Your task to perform on an android device: What's the weather today? Image 0: 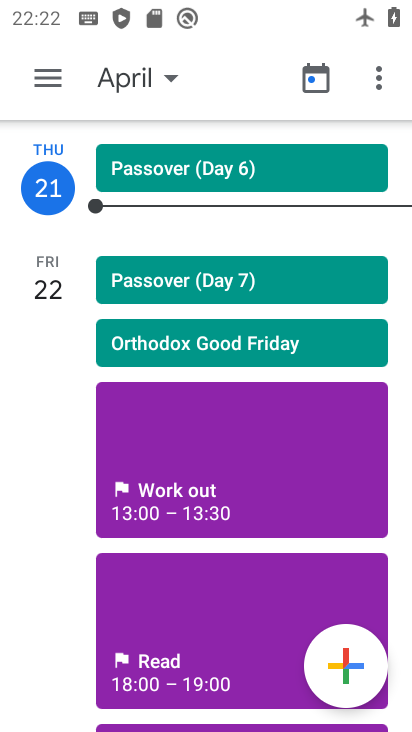
Step 0: press home button
Your task to perform on an android device: What's the weather today? Image 1: 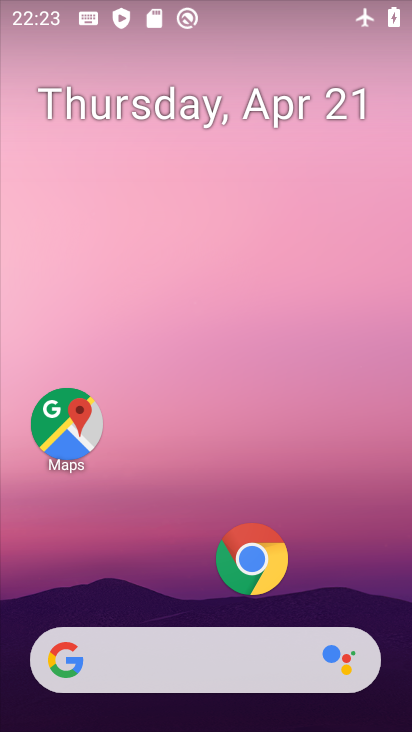
Step 1: click (254, 561)
Your task to perform on an android device: What's the weather today? Image 2: 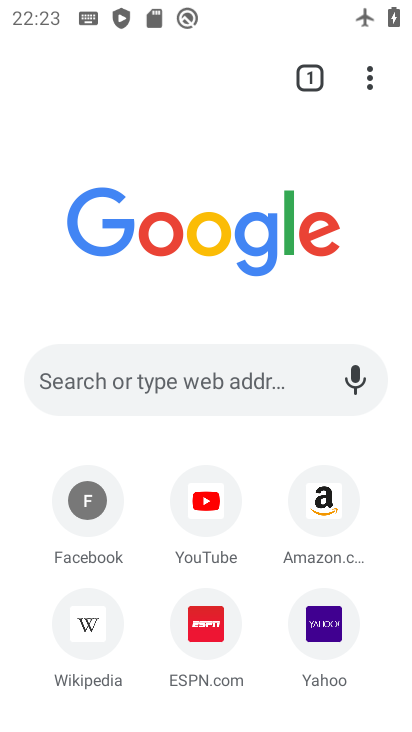
Step 2: click (152, 384)
Your task to perform on an android device: What's the weather today? Image 3: 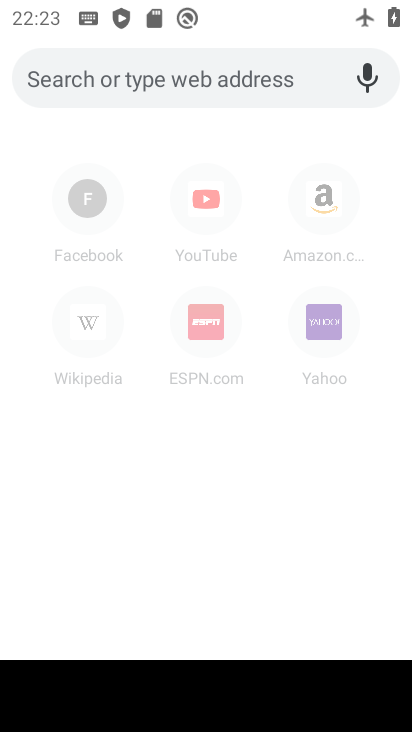
Step 3: type "today weather "
Your task to perform on an android device: What's the weather today? Image 4: 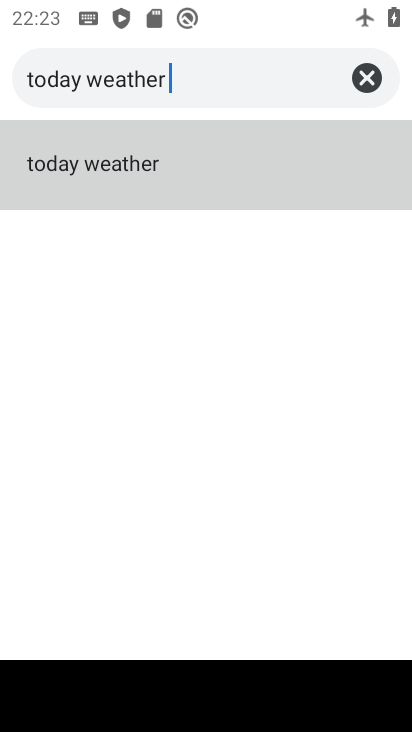
Step 4: click (142, 197)
Your task to perform on an android device: What's the weather today? Image 5: 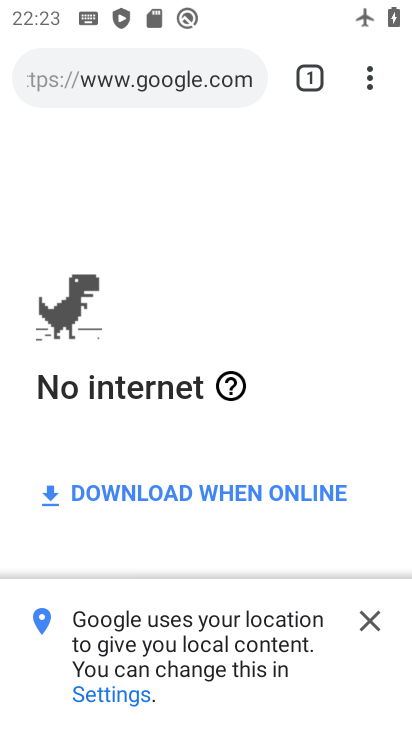
Step 5: task complete